Your task to perform on an android device: turn off airplane mode Image 0: 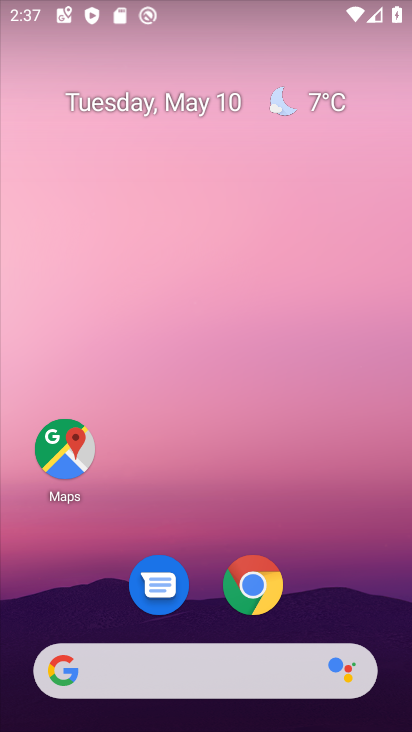
Step 0: drag from (310, 548) to (278, 100)
Your task to perform on an android device: turn off airplane mode Image 1: 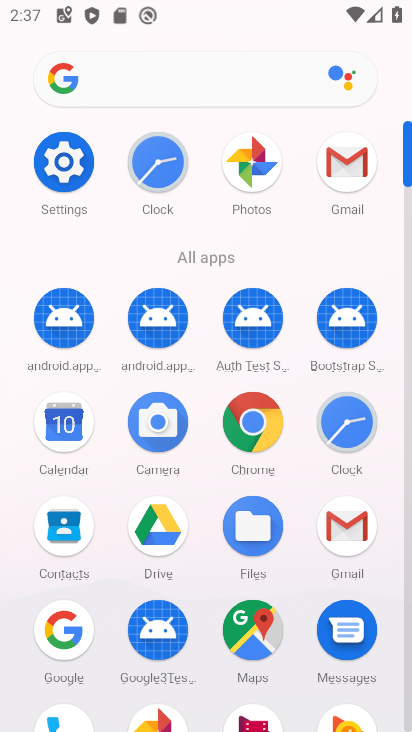
Step 1: click (51, 140)
Your task to perform on an android device: turn off airplane mode Image 2: 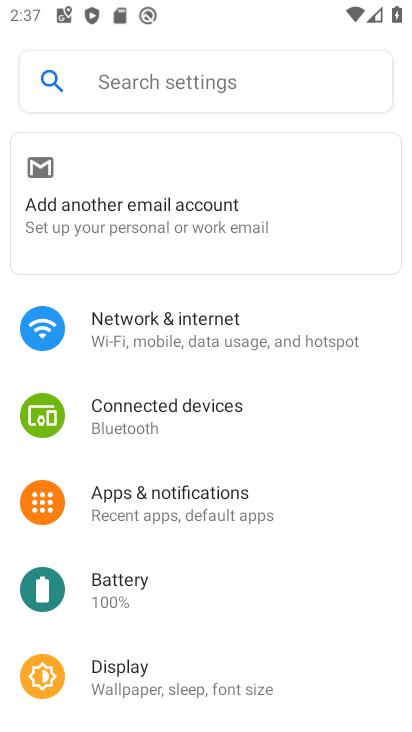
Step 2: click (208, 509)
Your task to perform on an android device: turn off airplane mode Image 3: 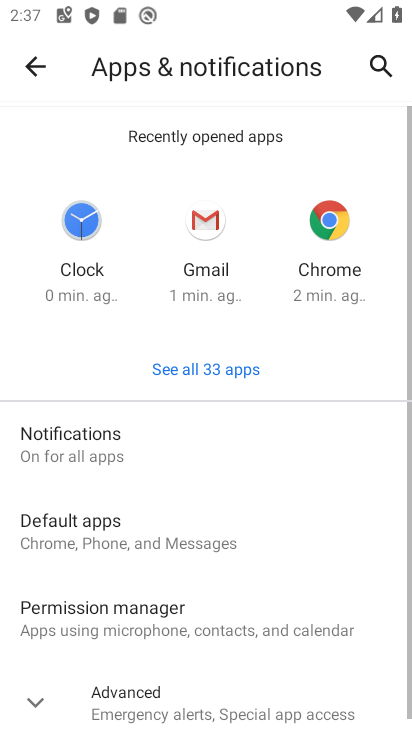
Step 3: click (32, 61)
Your task to perform on an android device: turn off airplane mode Image 4: 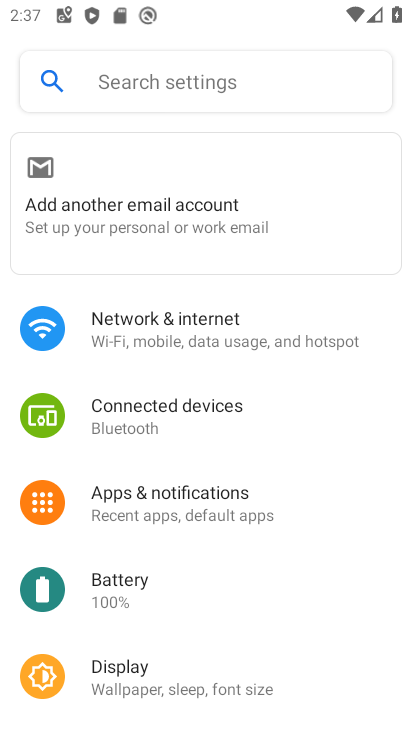
Step 4: click (187, 324)
Your task to perform on an android device: turn off airplane mode Image 5: 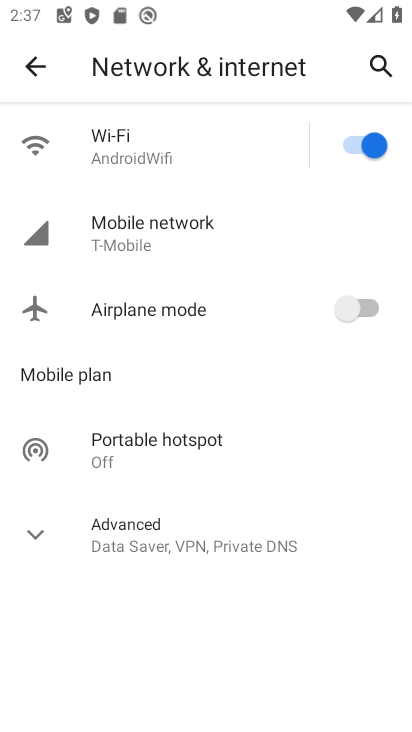
Step 5: task complete